Your task to perform on an android device: Open Chrome and go to settings Image 0: 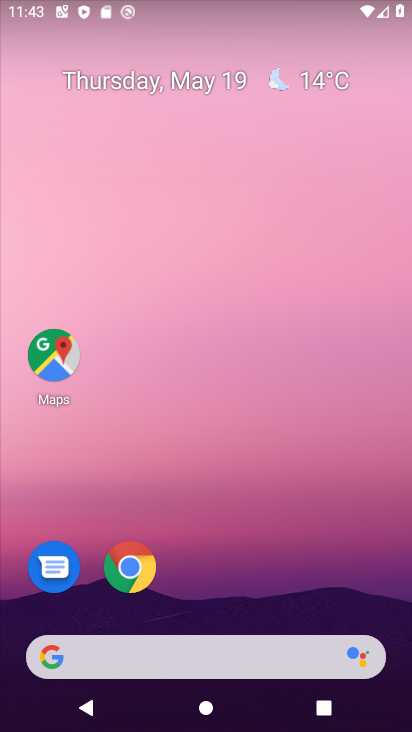
Step 0: drag from (329, 546) to (285, 46)
Your task to perform on an android device: Open Chrome and go to settings Image 1: 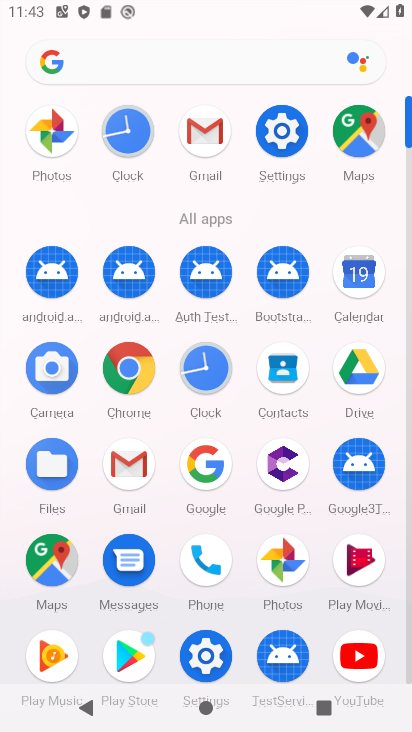
Step 1: click (120, 371)
Your task to perform on an android device: Open Chrome and go to settings Image 2: 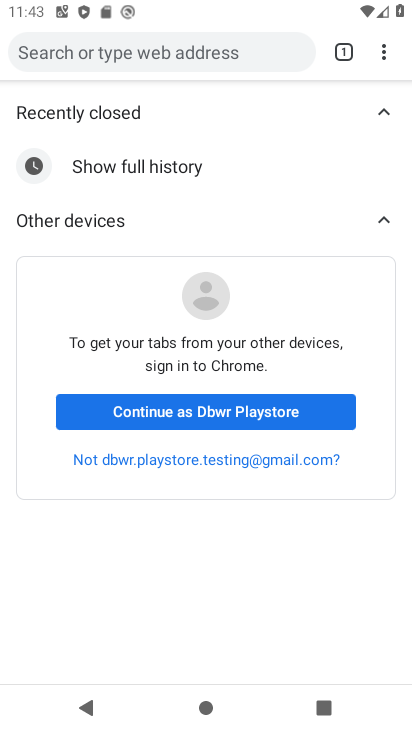
Step 2: click (211, 406)
Your task to perform on an android device: Open Chrome and go to settings Image 3: 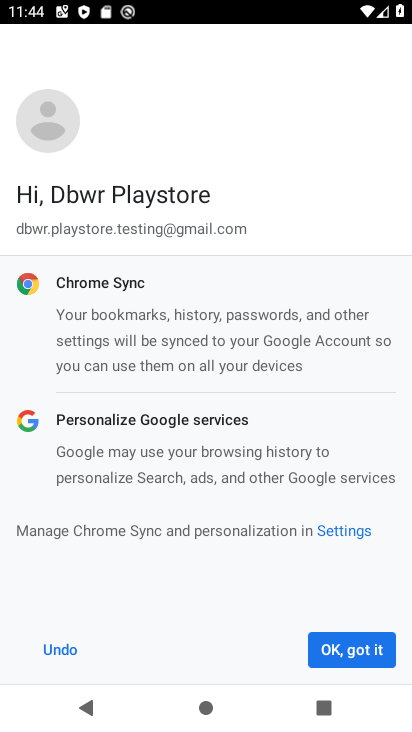
Step 3: click (372, 651)
Your task to perform on an android device: Open Chrome and go to settings Image 4: 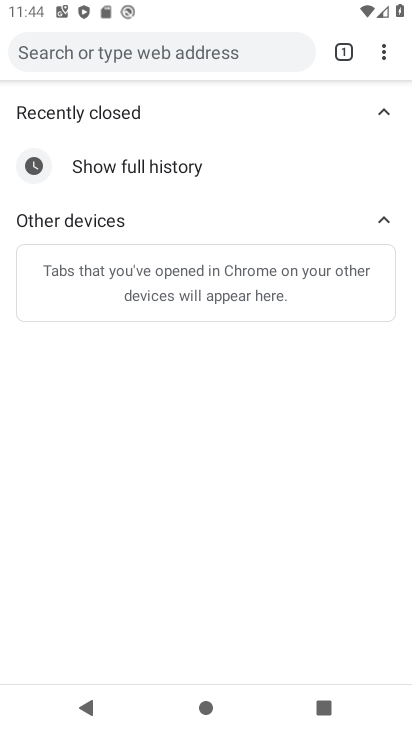
Step 4: task complete